Your task to perform on an android device: Open sound settings Image 0: 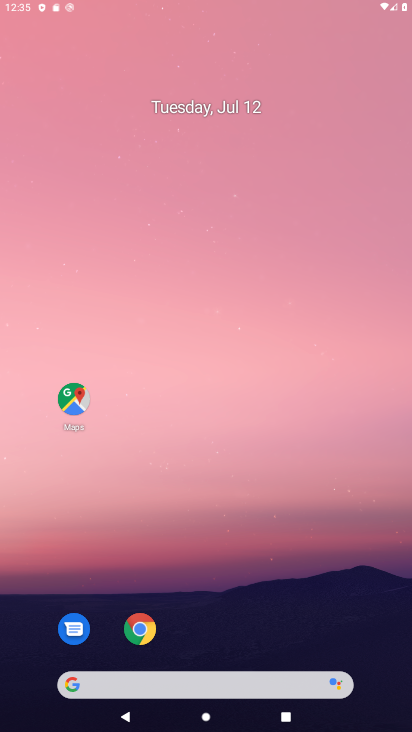
Step 0: click (140, 691)
Your task to perform on an android device: Open sound settings Image 1: 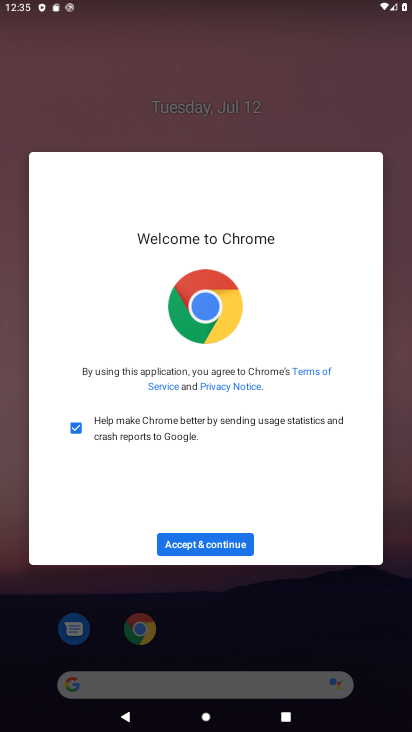
Step 1: press home button
Your task to perform on an android device: Open sound settings Image 2: 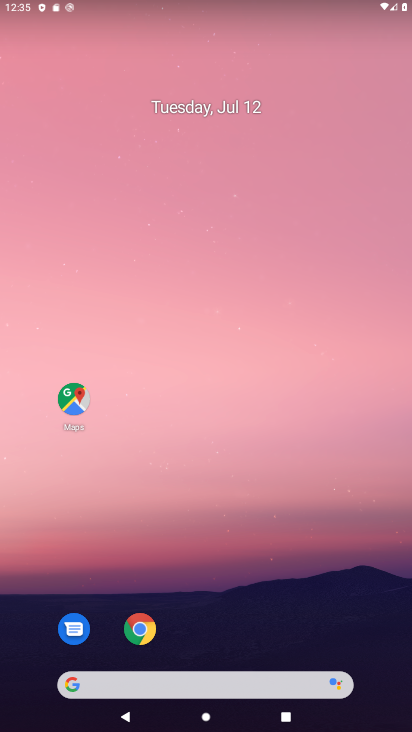
Step 2: drag from (24, 713) to (223, 24)
Your task to perform on an android device: Open sound settings Image 3: 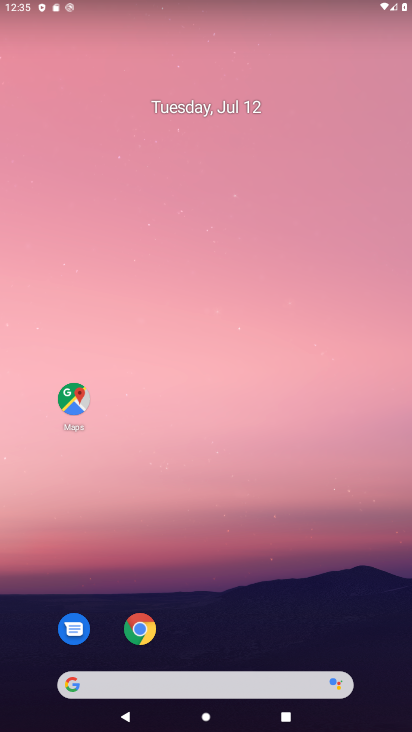
Step 3: drag from (24, 706) to (336, 13)
Your task to perform on an android device: Open sound settings Image 4: 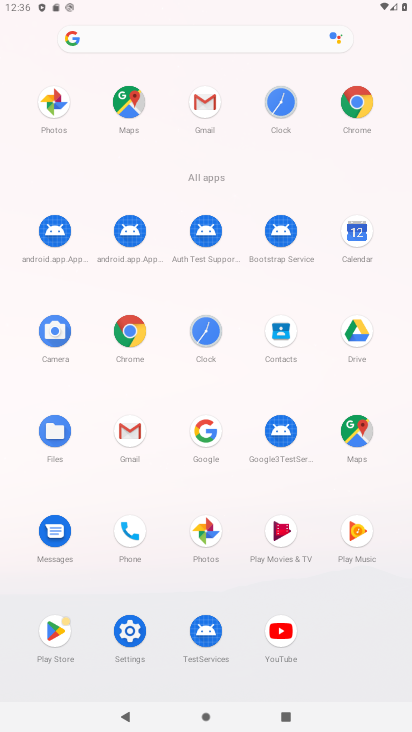
Step 4: click (125, 634)
Your task to perform on an android device: Open sound settings Image 5: 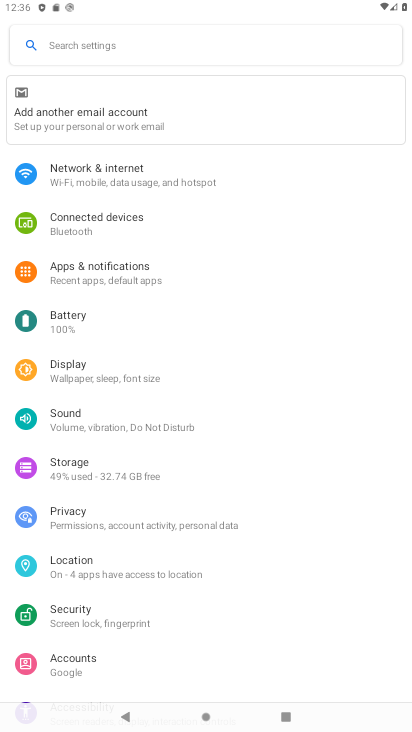
Step 5: click (77, 425)
Your task to perform on an android device: Open sound settings Image 6: 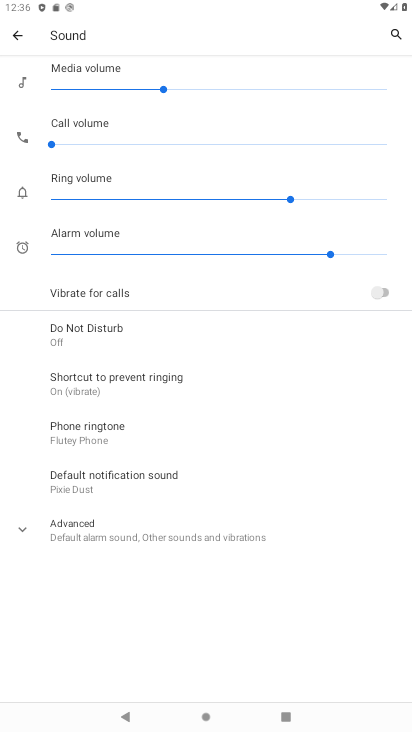
Step 6: task complete